Your task to perform on an android device: turn vacation reply on in the gmail app Image 0: 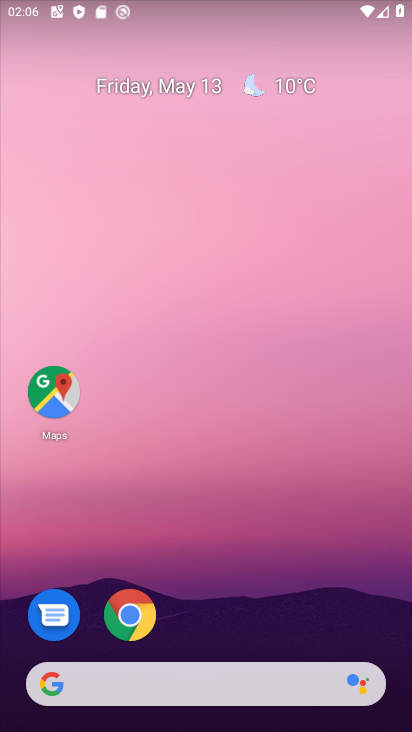
Step 0: drag from (231, 623) to (99, 55)
Your task to perform on an android device: turn vacation reply on in the gmail app Image 1: 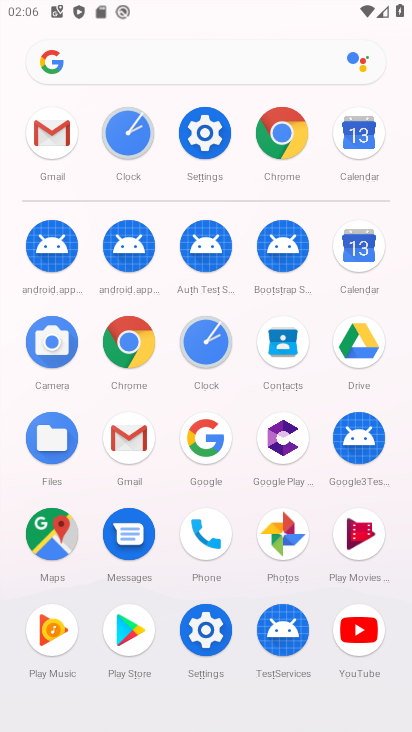
Step 1: click (124, 433)
Your task to perform on an android device: turn vacation reply on in the gmail app Image 2: 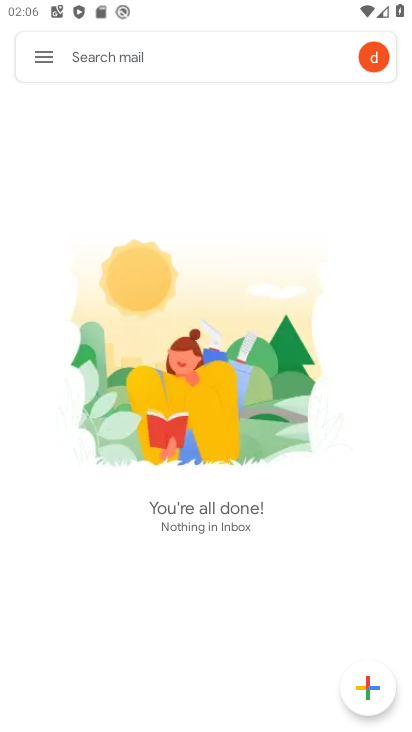
Step 2: click (38, 63)
Your task to perform on an android device: turn vacation reply on in the gmail app Image 3: 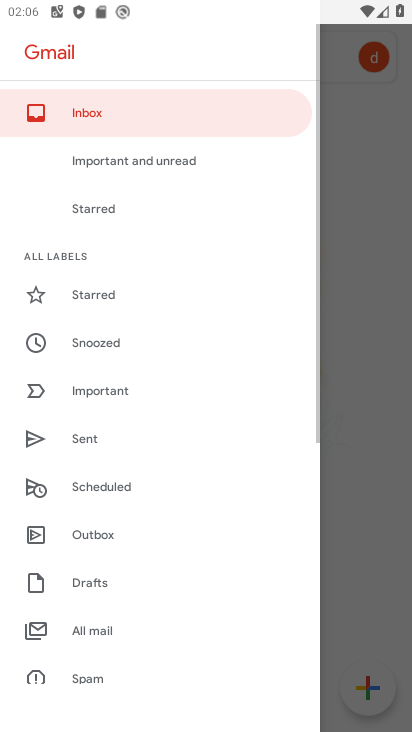
Step 3: drag from (141, 661) to (99, 201)
Your task to perform on an android device: turn vacation reply on in the gmail app Image 4: 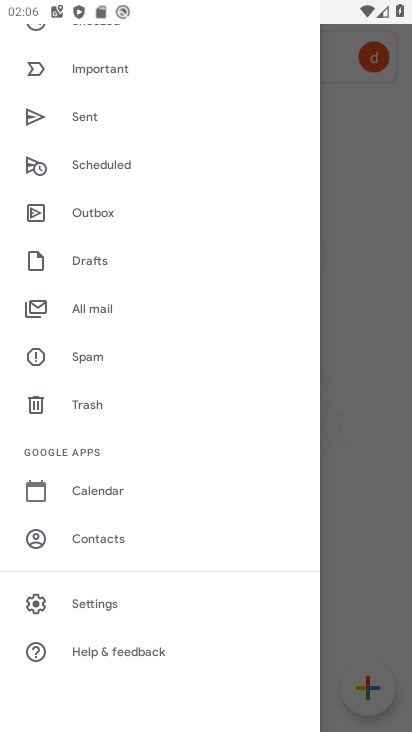
Step 4: click (91, 602)
Your task to perform on an android device: turn vacation reply on in the gmail app Image 5: 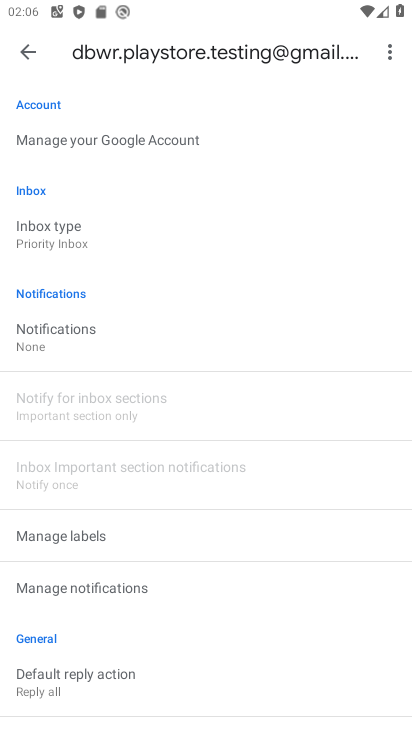
Step 5: drag from (91, 602) to (87, 184)
Your task to perform on an android device: turn vacation reply on in the gmail app Image 6: 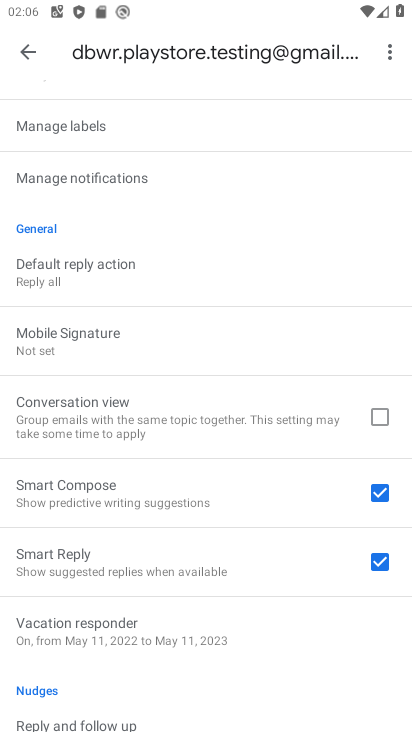
Step 6: click (221, 635)
Your task to perform on an android device: turn vacation reply on in the gmail app Image 7: 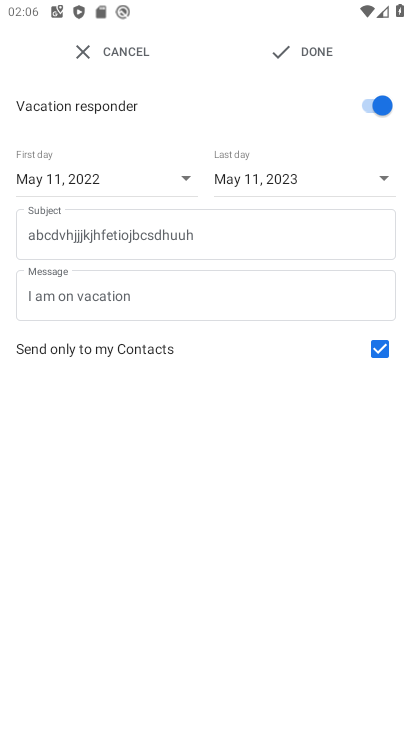
Step 7: task complete